Your task to perform on an android device: toggle sleep mode Image 0: 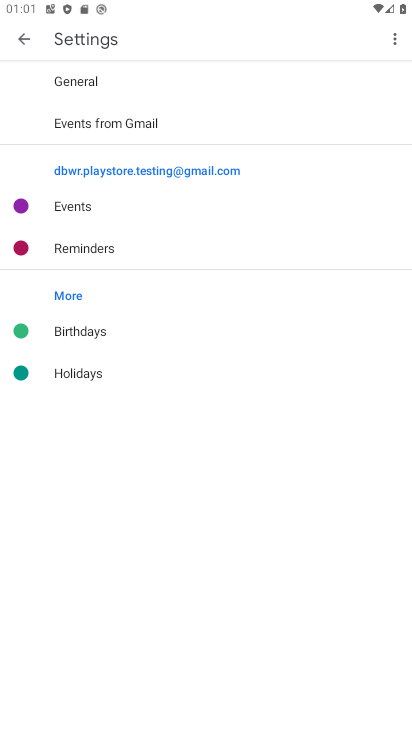
Step 0: press home button
Your task to perform on an android device: toggle sleep mode Image 1: 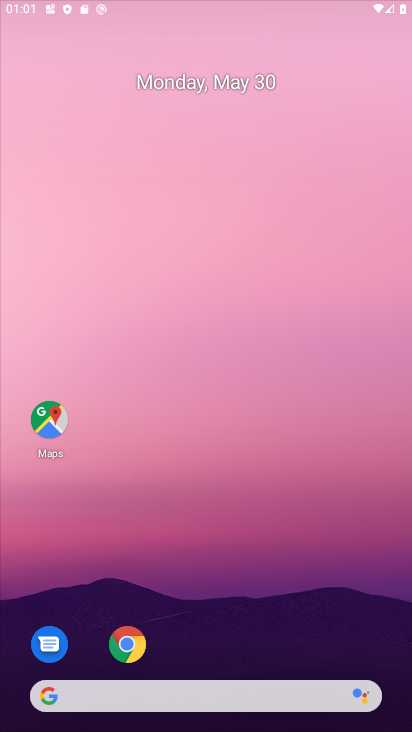
Step 1: drag from (315, 599) to (339, 163)
Your task to perform on an android device: toggle sleep mode Image 2: 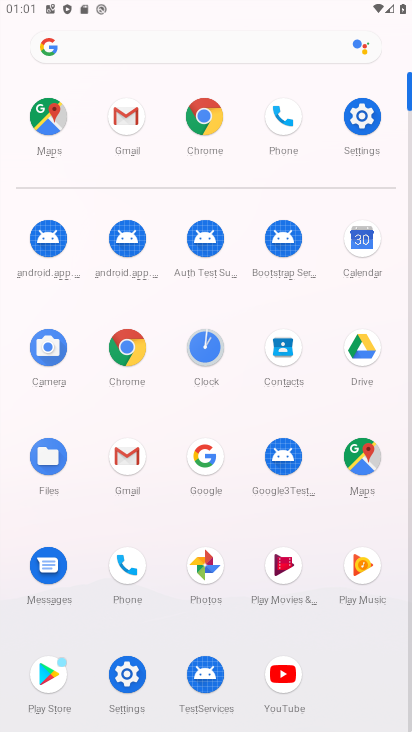
Step 2: click (361, 129)
Your task to perform on an android device: toggle sleep mode Image 3: 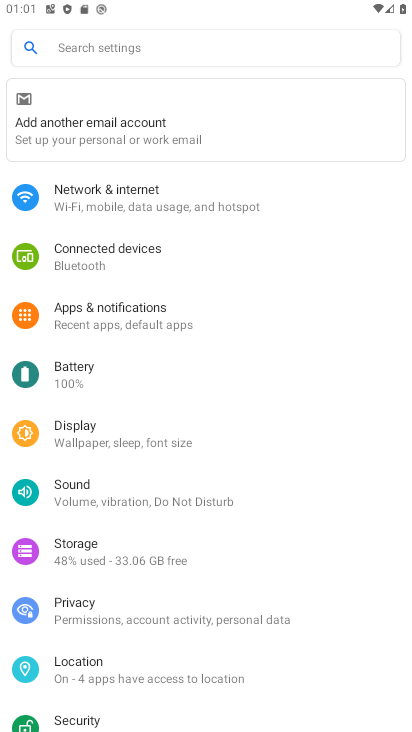
Step 3: click (174, 53)
Your task to perform on an android device: toggle sleep mode Image 4: 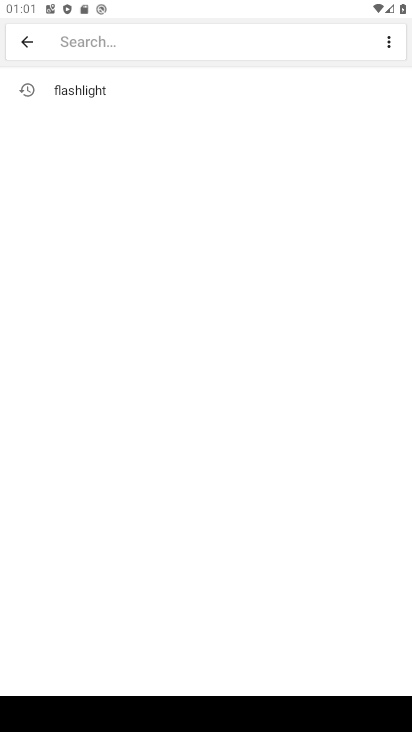
Step 4: type "sleep mode"
Your task to perform on an android device: toggle sleep mode Image 5: 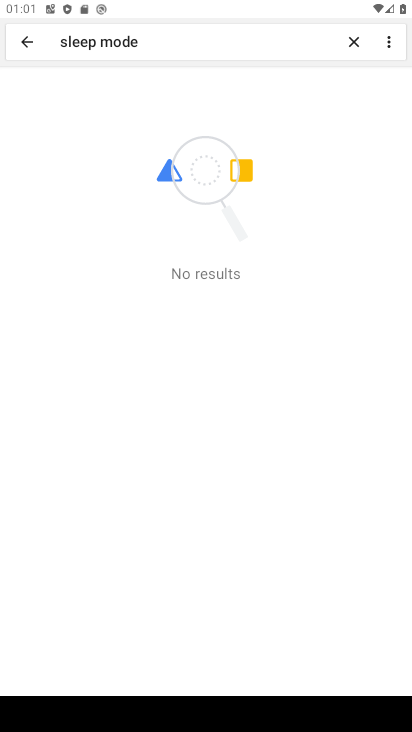
Step 5: task complete